Your task to perform on an android device: turn off sleep mode Image 0: 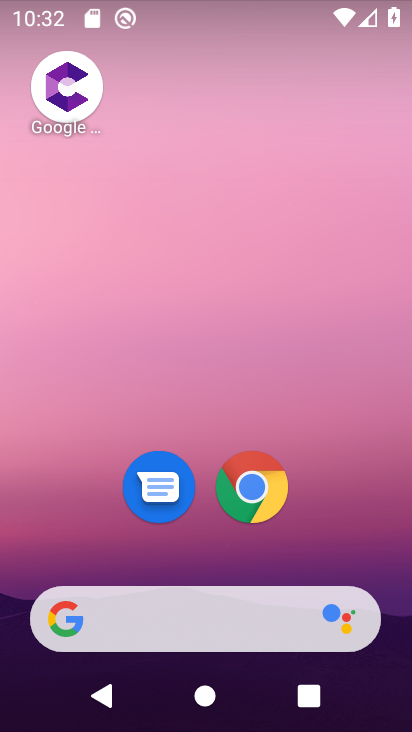
Step 0: drag from (330, 547) to (259, 169)
Your task to perform on an android device: turn off sleep mode Image 1: 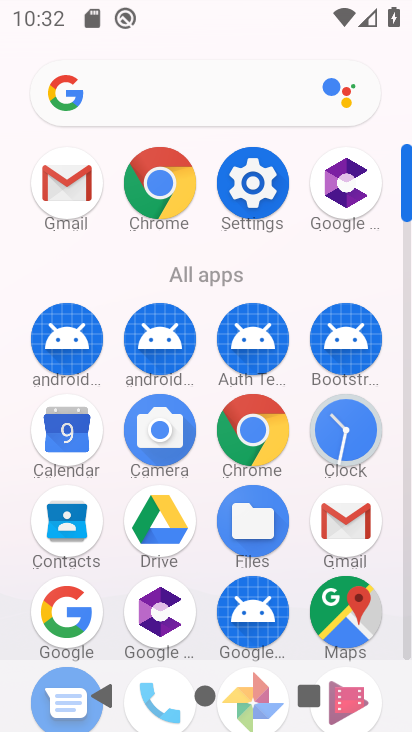
Step 1: click (246, 189)
Your task to perform on an android device: turn off sleep mode Image 2: 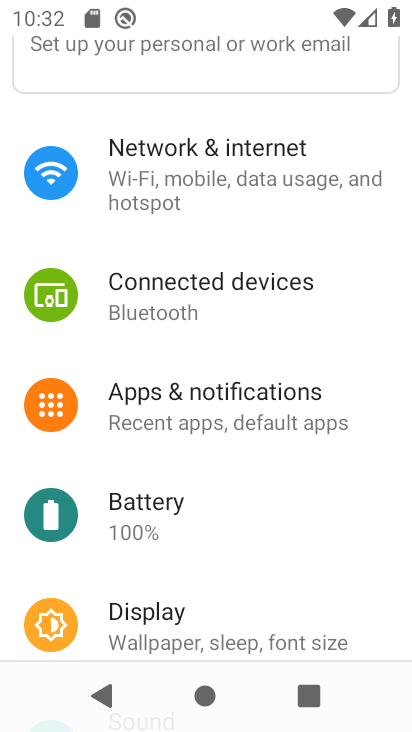
Step 2: click (219, 636)
Your task to perform on an android device: turn off sleep mode Image 3: 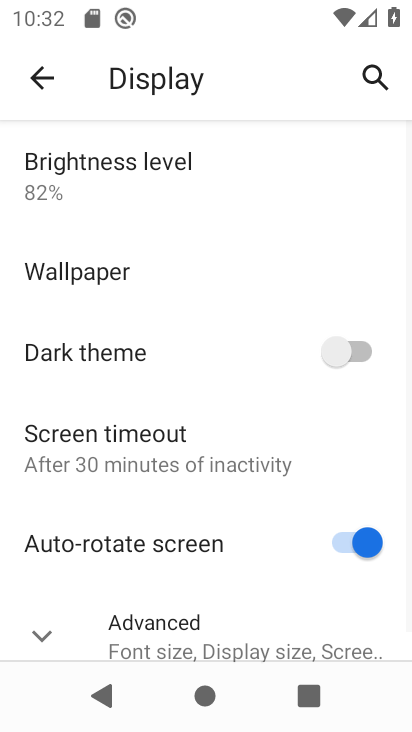
Step 3: click (131, 634)
Your task to perform on an android device: turn off sleep mode Image 4: 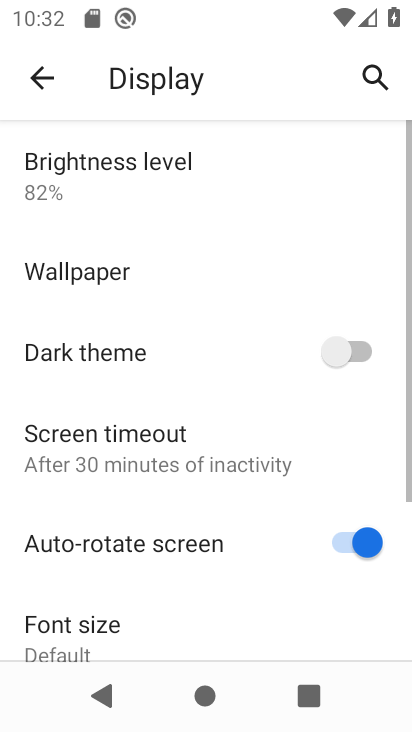
Step 4: task complete